Your task to perform on an android device: add a label to a message in the gmail app Image 0: 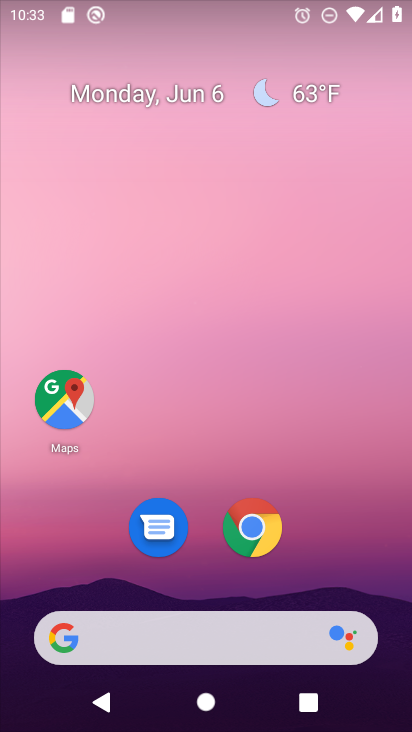
Step 0: drag from (359, 598) to (390, 202)
Your task to perform on an android device: add a label to a message in the gmail app Image 1: 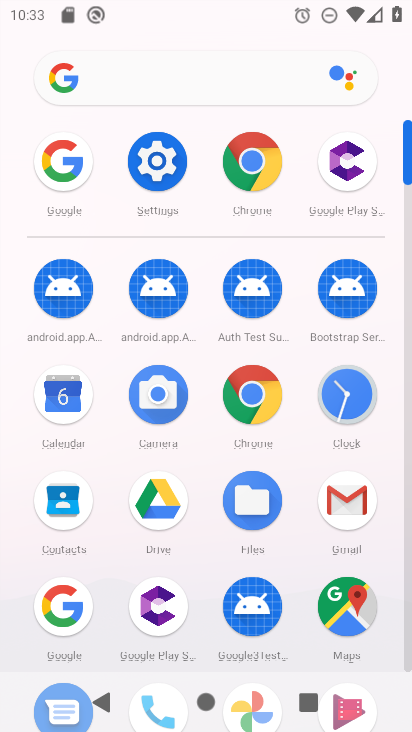
Step 1: click (350, 493)
Your task to perform on an android device: add a label to a message in the gmail app Image 2: 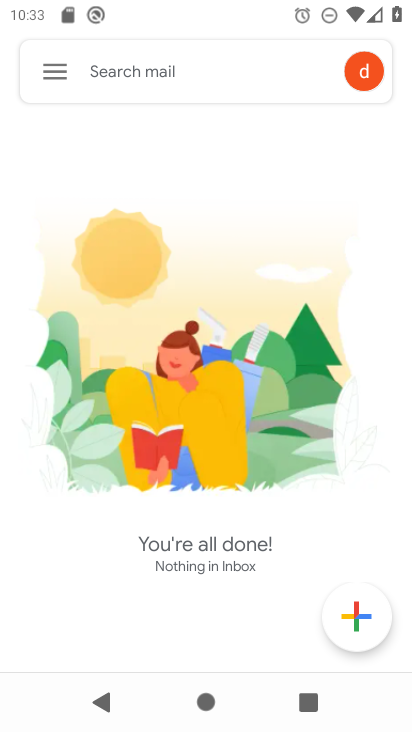
Step 2: task complete